Your task to perform on an android device: check google app version Image 0: 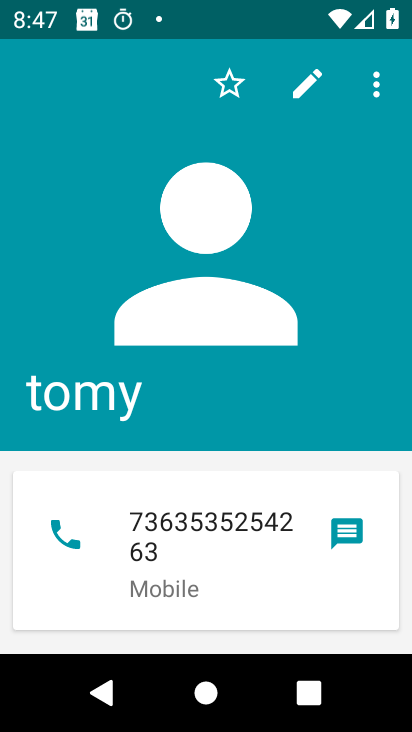
Step 0: press home button
Your task to perform on an android device: check google app version Image 1: 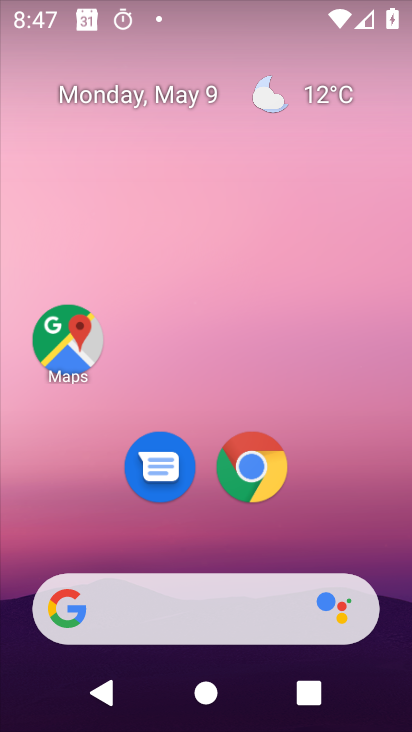
Step 1: drag from (349, 556) to (334, 0)
Your task to perform on an android device: check google app version Image 2: 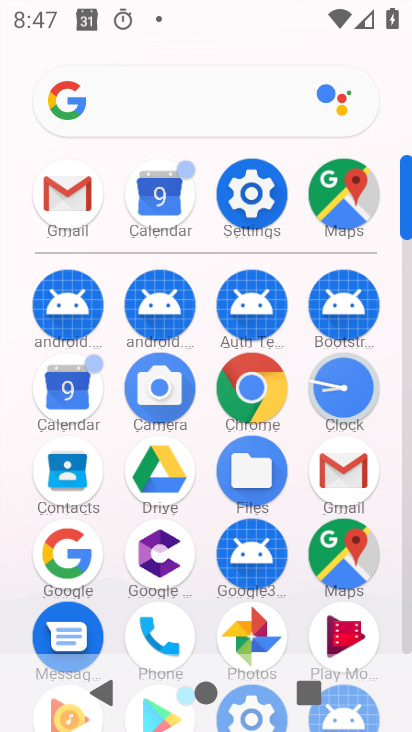
Step 2: click (65, 566)
Your task to perform on an android device: check google app version Image 3: 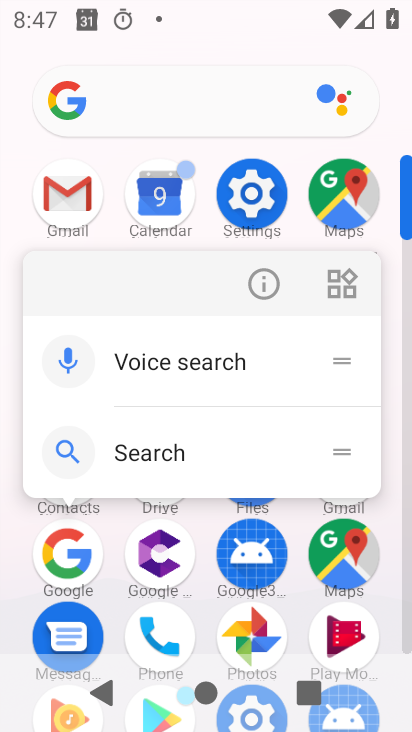
Step 3: click (267, 293)
Your task to perform on an android device: check google app version Image 4: 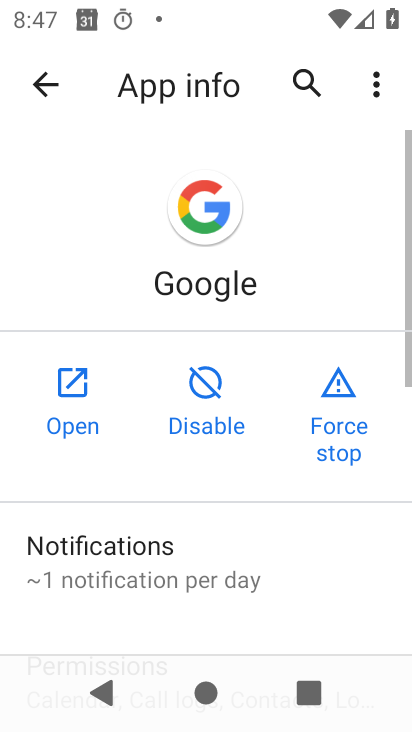
Step 4: drag from (320, 616) to (321, 76)
Your task to perform on an android device: check google app version Image 5: 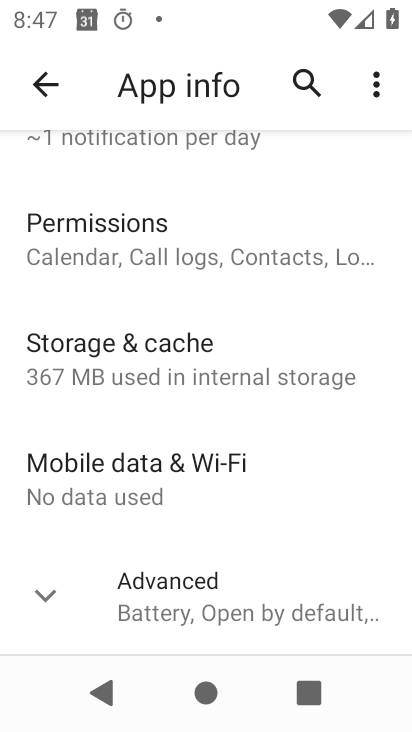
Step 5: drag from (330, 545) to (309, 204)
Your task to perform on an android device: check google app version Image 6: 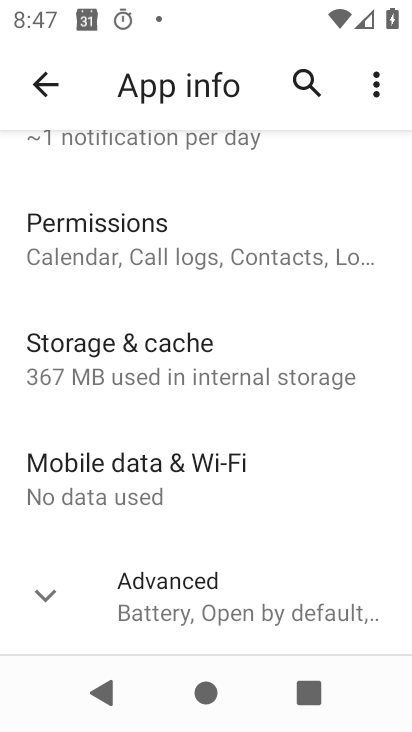
Step 6: click (47, 600)
Your task to perform on an android device: check google app version Image 7: 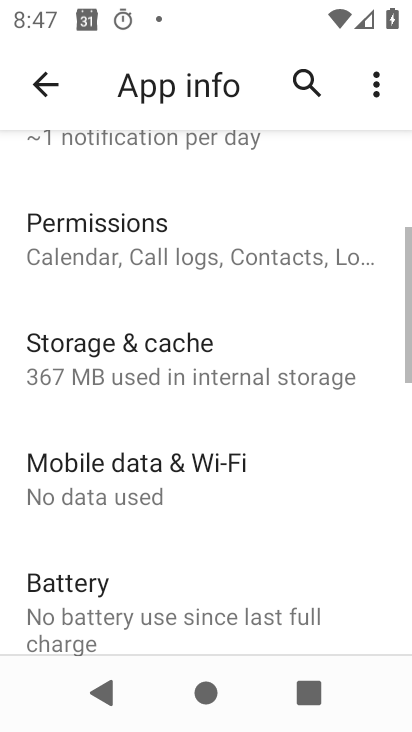
Step 7: task complete